Your task to perform on an android device: Go to calendar. Show me events next week Image 0: 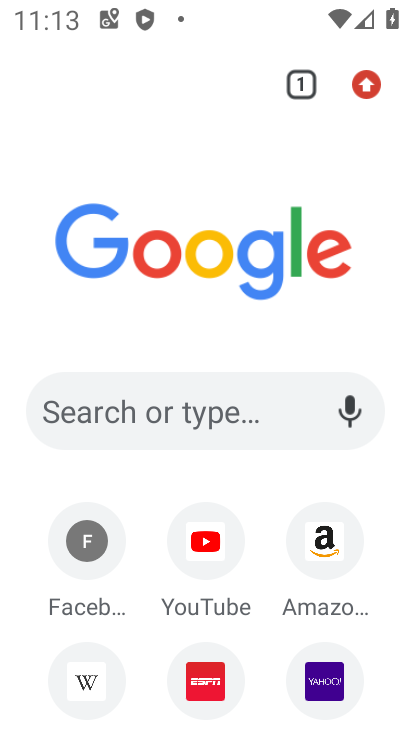
Step 0: press home button
Your task to perform on an android device: Go to calendar. Show me events next week Image 1: 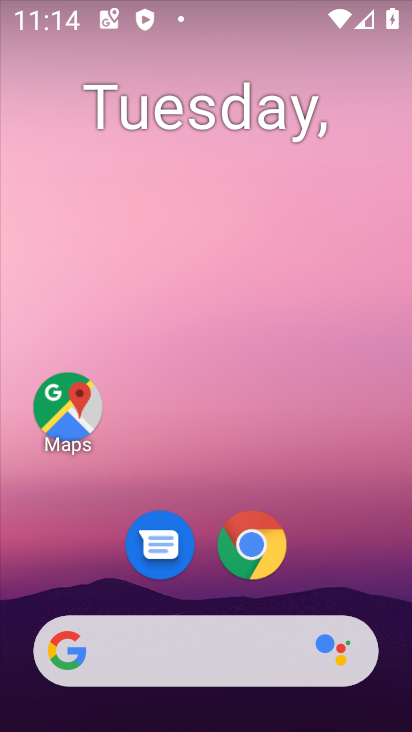
Step 1: drag from (313, 536) to (351, 89)
Your task to perform on an android device: Go to calendar. Show me events next week Image 2: 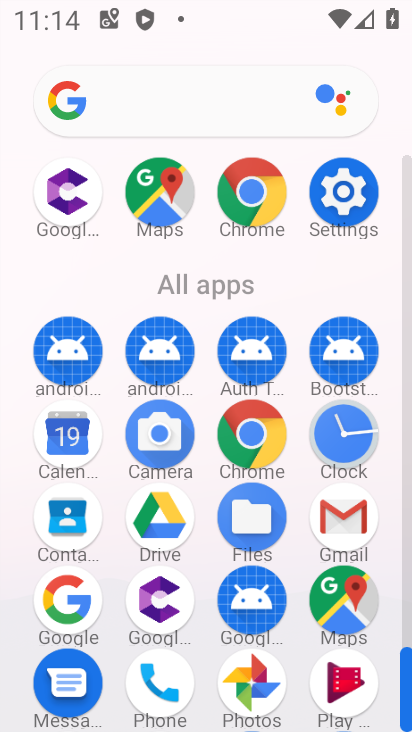
Step 2: click (59, 447)
Your task to perform on an android device: Go to calendar. Show me events next week Image 3: 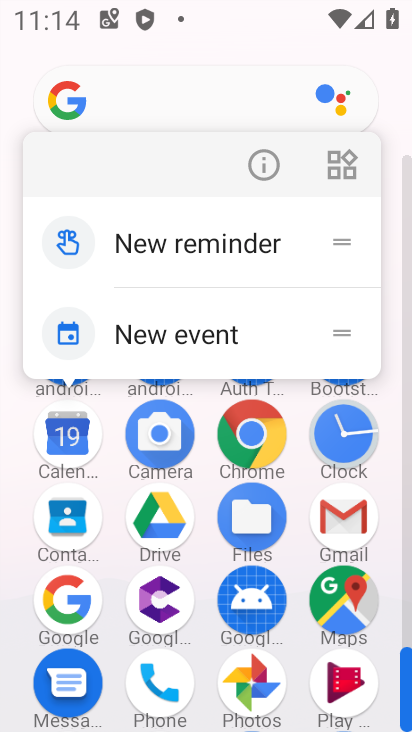
Step 3: click (60, 446)
Your task to perform on an android device: Go to calendar. Show me events next week Image 4: 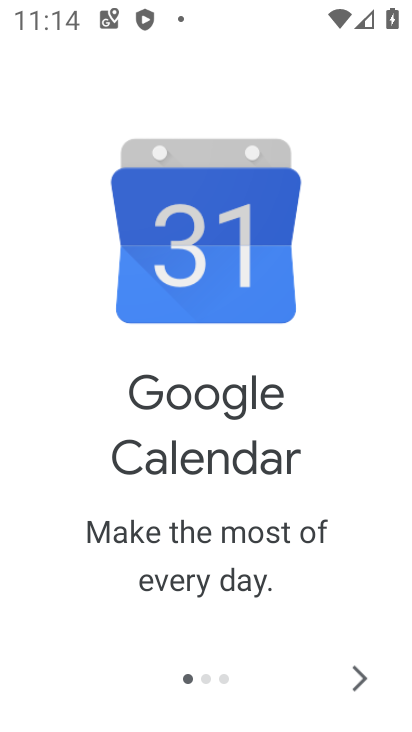
Step 4: click (347, 671)
Your task to perform on an android device: Go to calendar. Show me events next week Image 5: 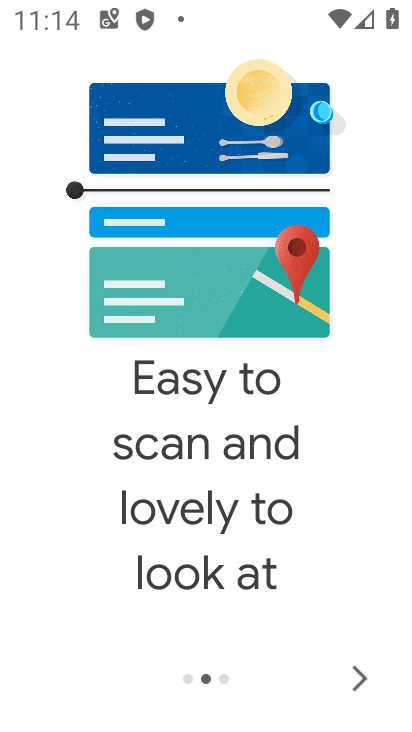
Step 5: click (347, 671)
Your task to perform on an android device: Go to calendar. Show me events next week Image 6: 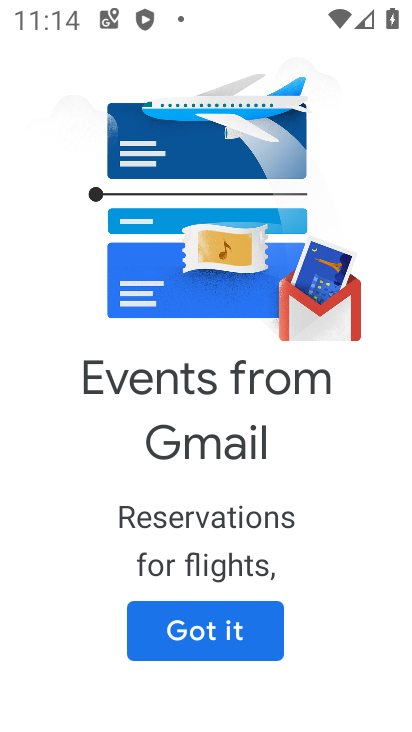
Step 6: click (262, 641)
Your task to perform on an android device: Go to calendar. Show me events next week Image 7: 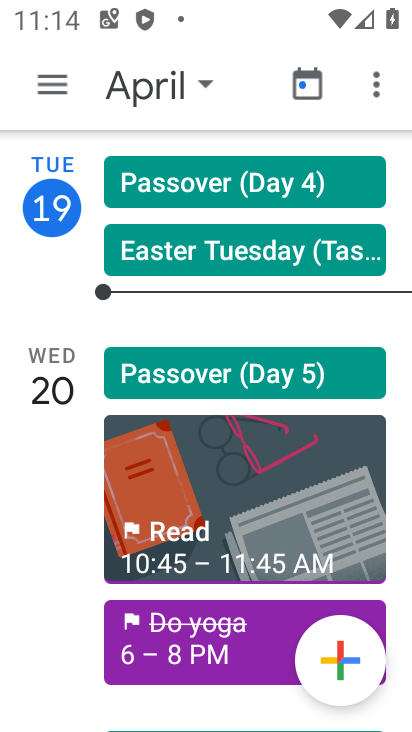
Step 7: click (58, 74)
Your task to perform on an android device: Go to calendar. Show me events next week Image 8: 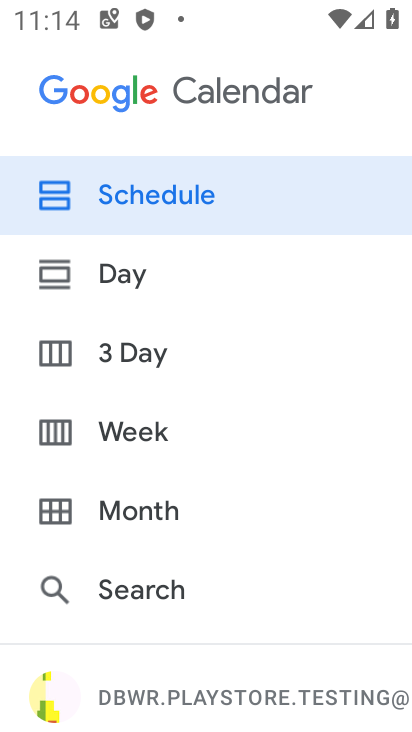
Step 8: click (62, 428)
Your task to perform on an android device: Go to calendar. Show me events next week Image 9: 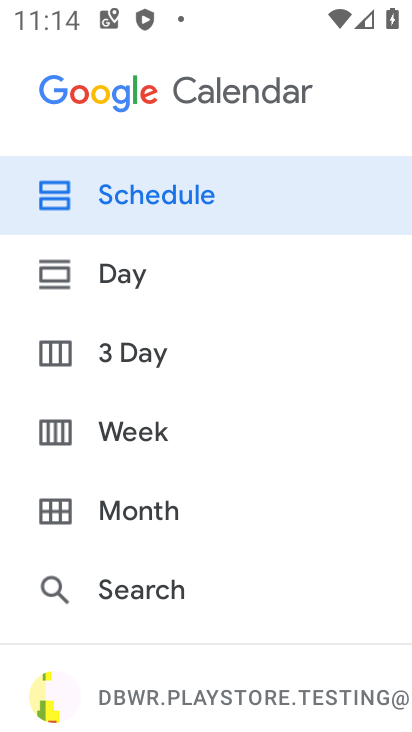
Step 9: click (55, 423)
Your task to perform on an android device: Go to calendar. Show me events next week Image 10: 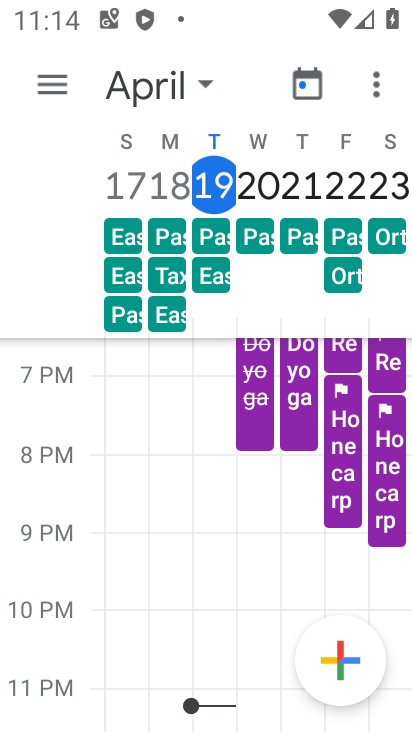
Step 10: task complete